Your task to perform on an android device: Open notification settings Image 0: 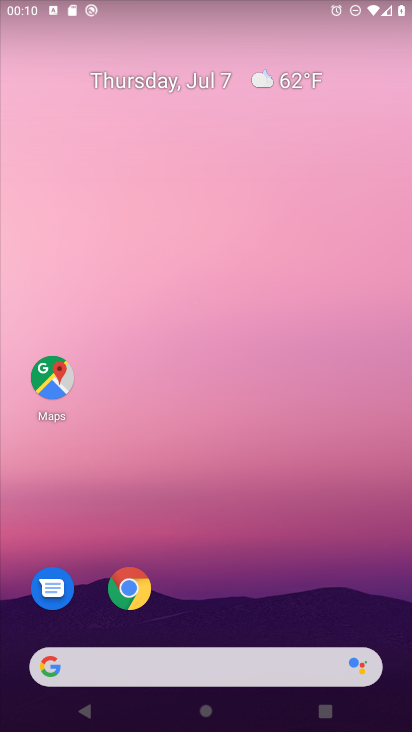
Step 0: drag from (352, 605) to (336, 106)
Your task to perform on an android device: Open notification settings Image 1: 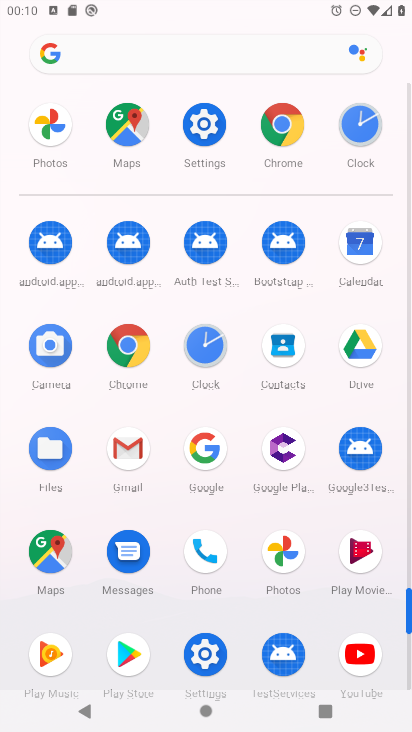
Step 1: click (205, 654)
Your task to perform on an android device: Open notification settings Image 2: 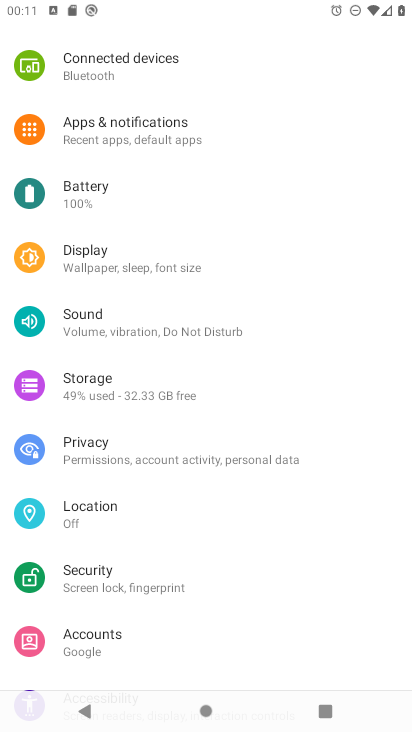
Step 2: click (111, 127)
Your task to perform on an android device: Open notification settings Image 3: 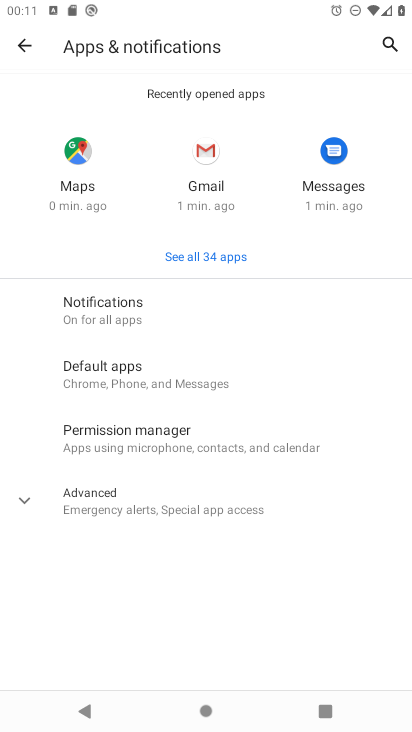
Step 3: click (22, 499)
Your task to perform on an android device: Open notification settings Image 4: 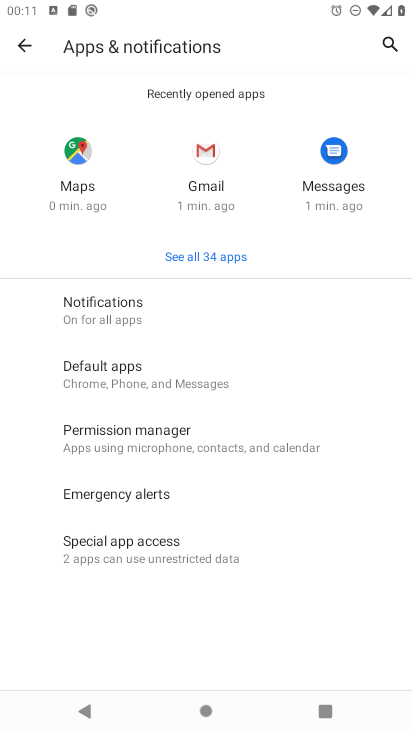
Step 4: click (93, 302)
Your task to perform on an android device: Open notification settings Image 5: 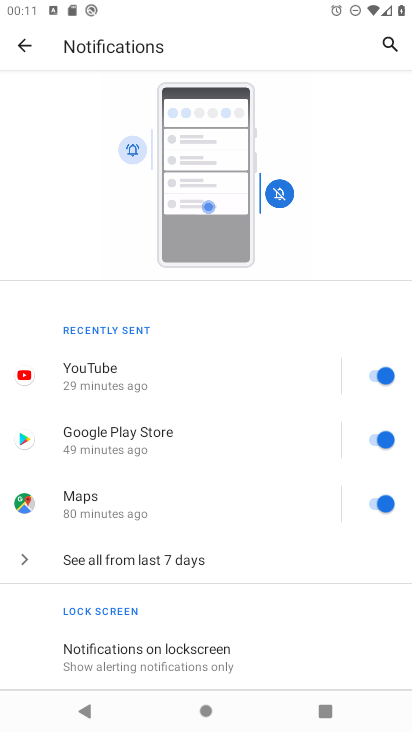
Step 5: drag from (312, 615) to (341, 153)
Your task to perform on an android device: Open notification settings Image 6: 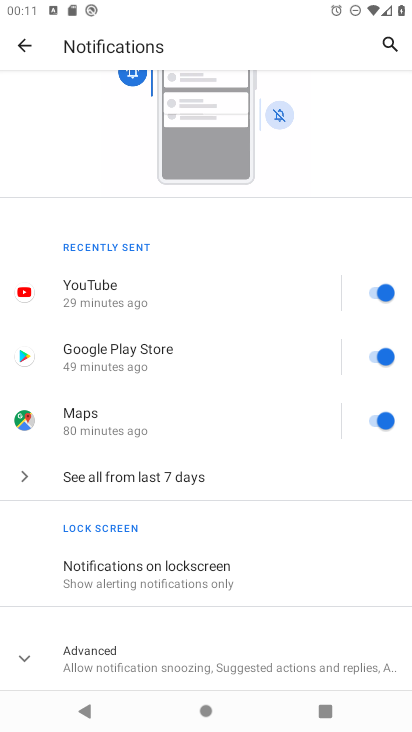
Step 6: click (15, 652)
Your task to perform on an android device: Open notification settings Image 7: 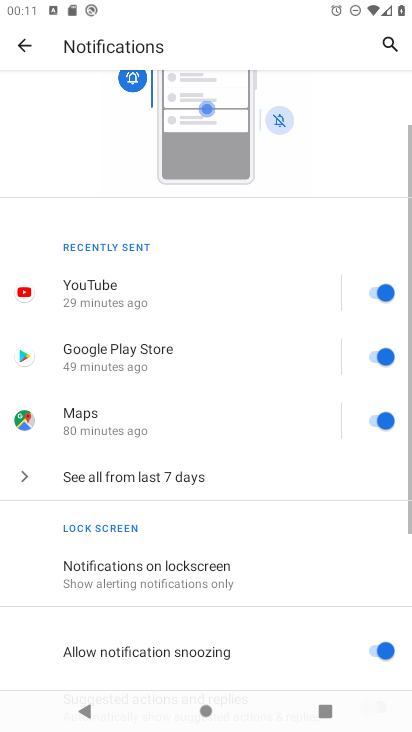
Step 7: task complete